Your task to perform on an android device: open app "Messenger Lite" Image 0: 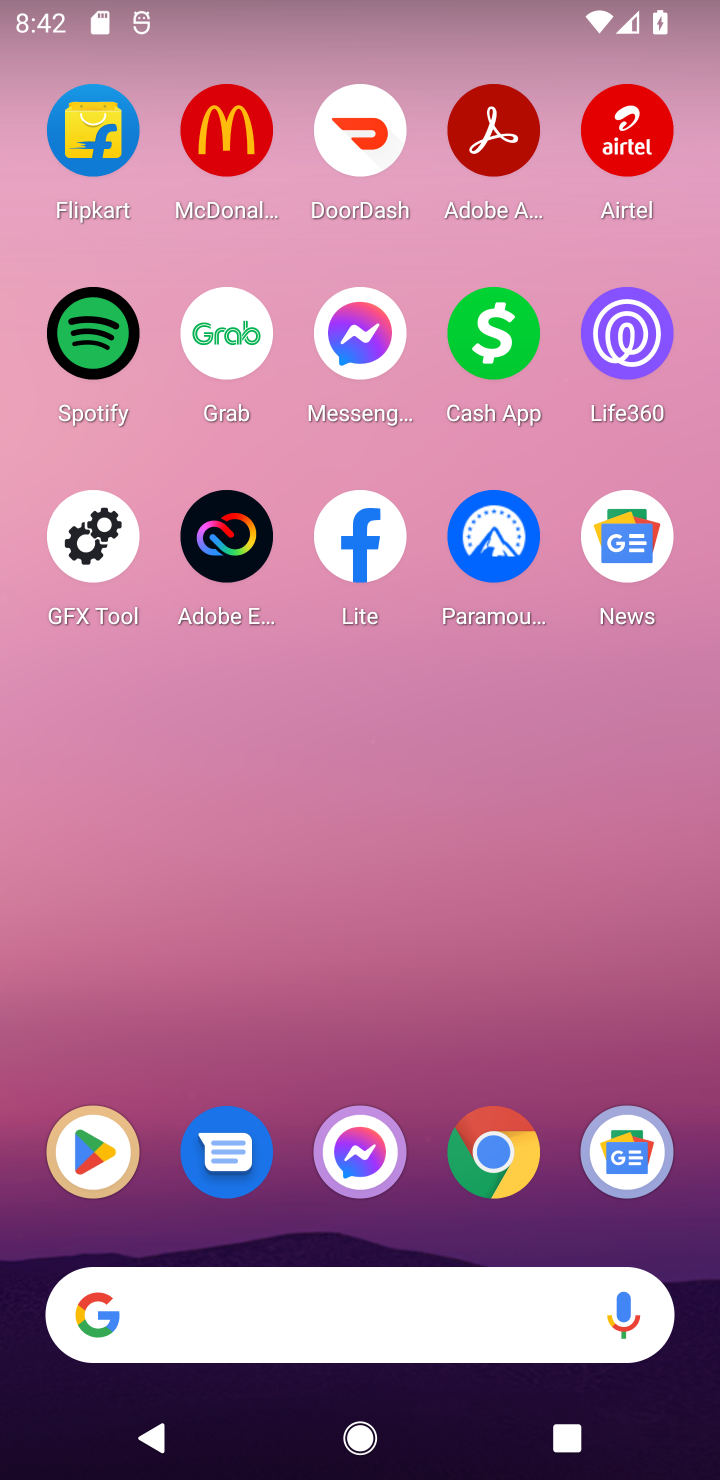
Step 0: click (85, 1172)
Your task to perform on an android device: open app "Messenger Lite" Image 1: 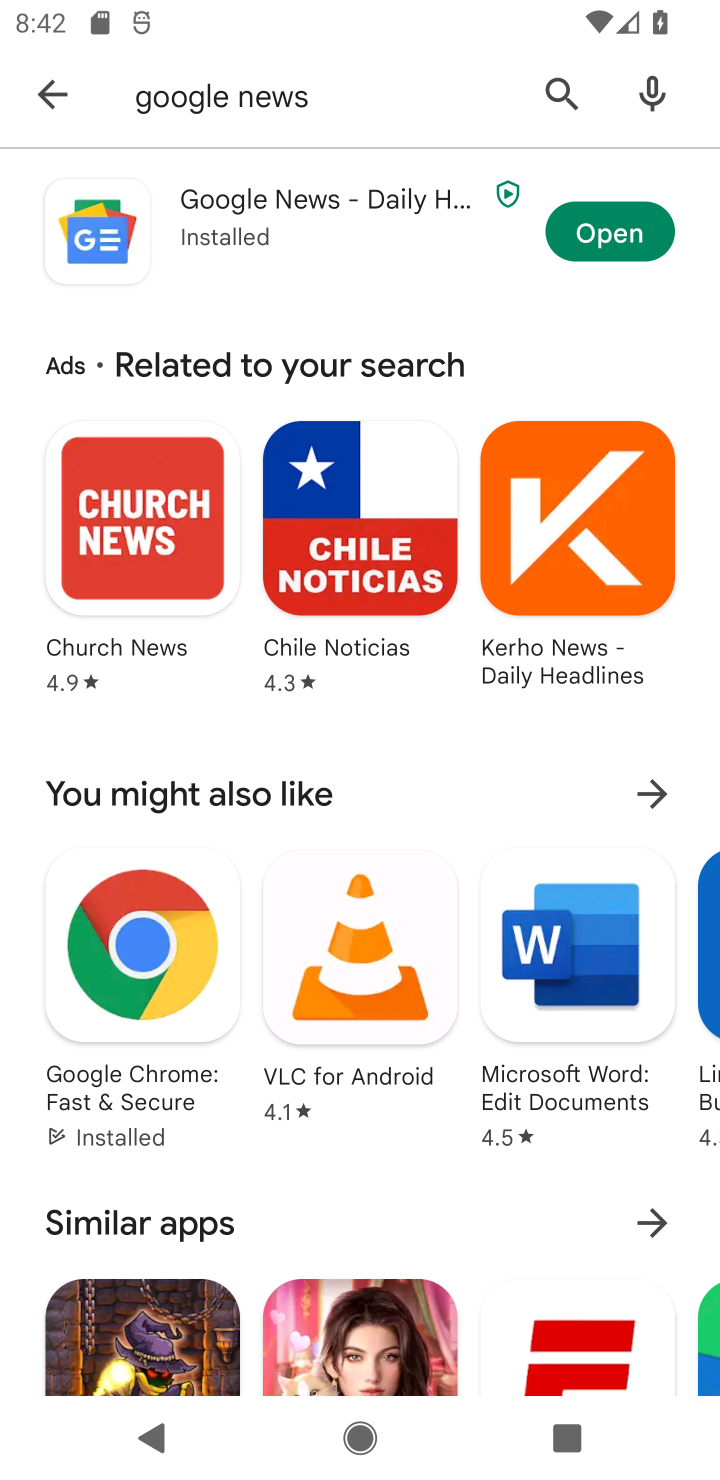
Step 1: click (28, 86)
Your task to perform on an android device: open app "Messenger Lite" Image 2: 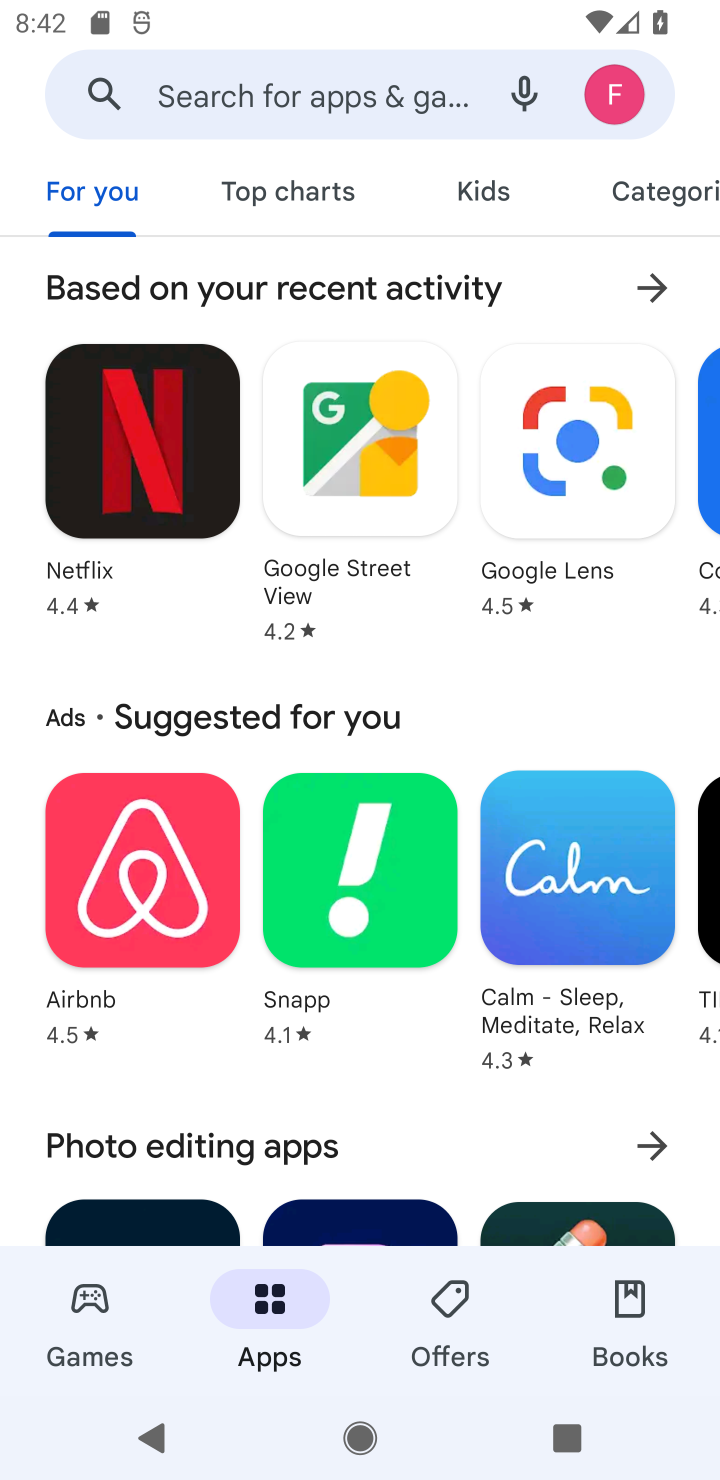
Step 2: click (283, 86)
Your task to perform on an android device: open app "Messenger Lite" Image 3: 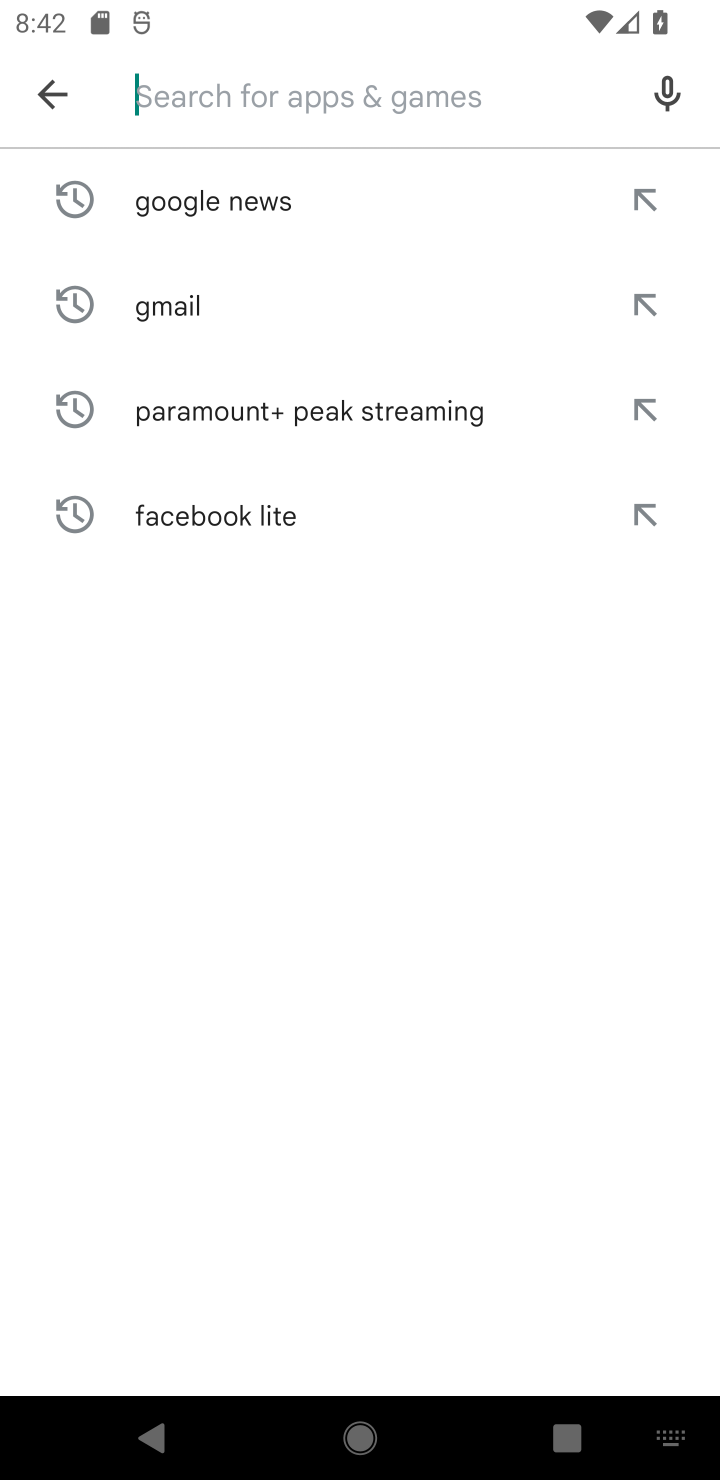
Step 3: type "Messenger Lite"
Your task to perform on an android device: open app "Messenger Lite" Image 4: 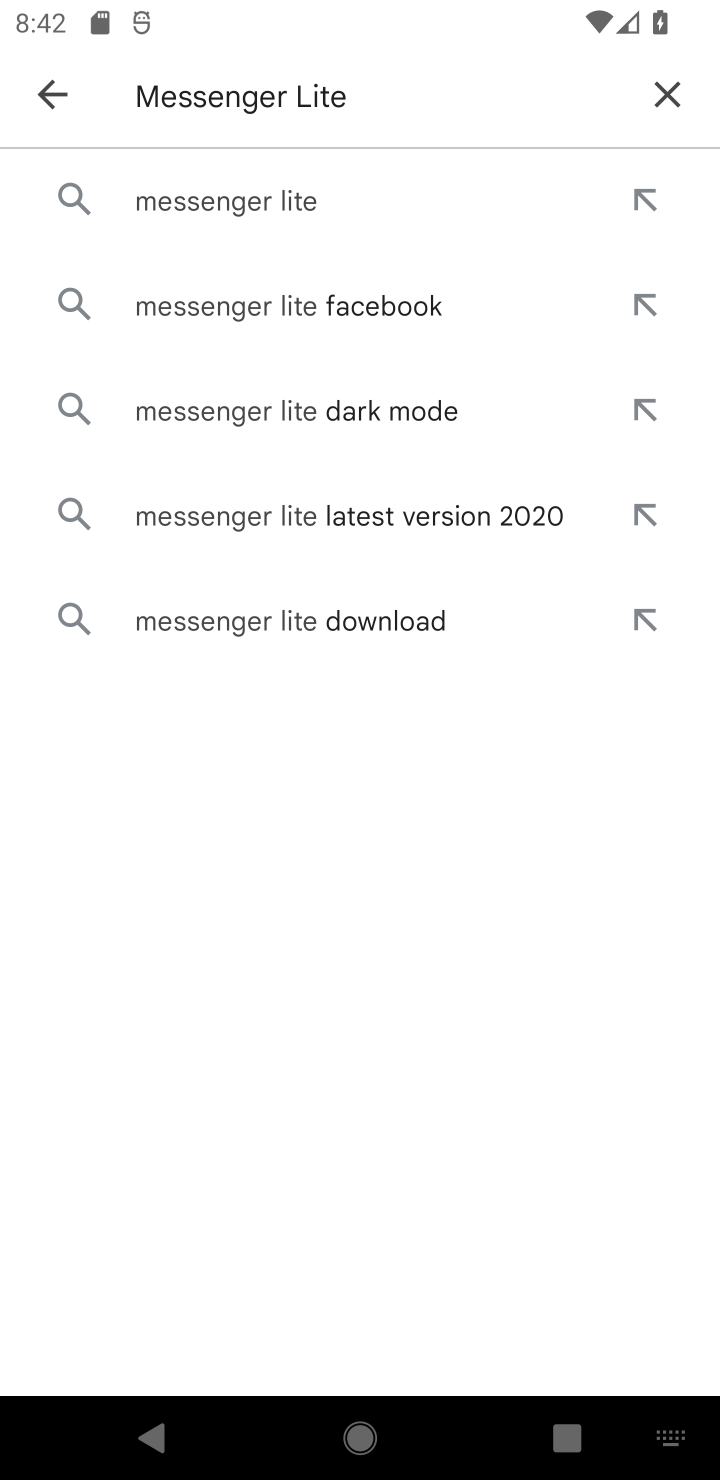
Step 4: click (295, 200)
Your task to perform on an android device: open app "Messenger Lite" Image 5: 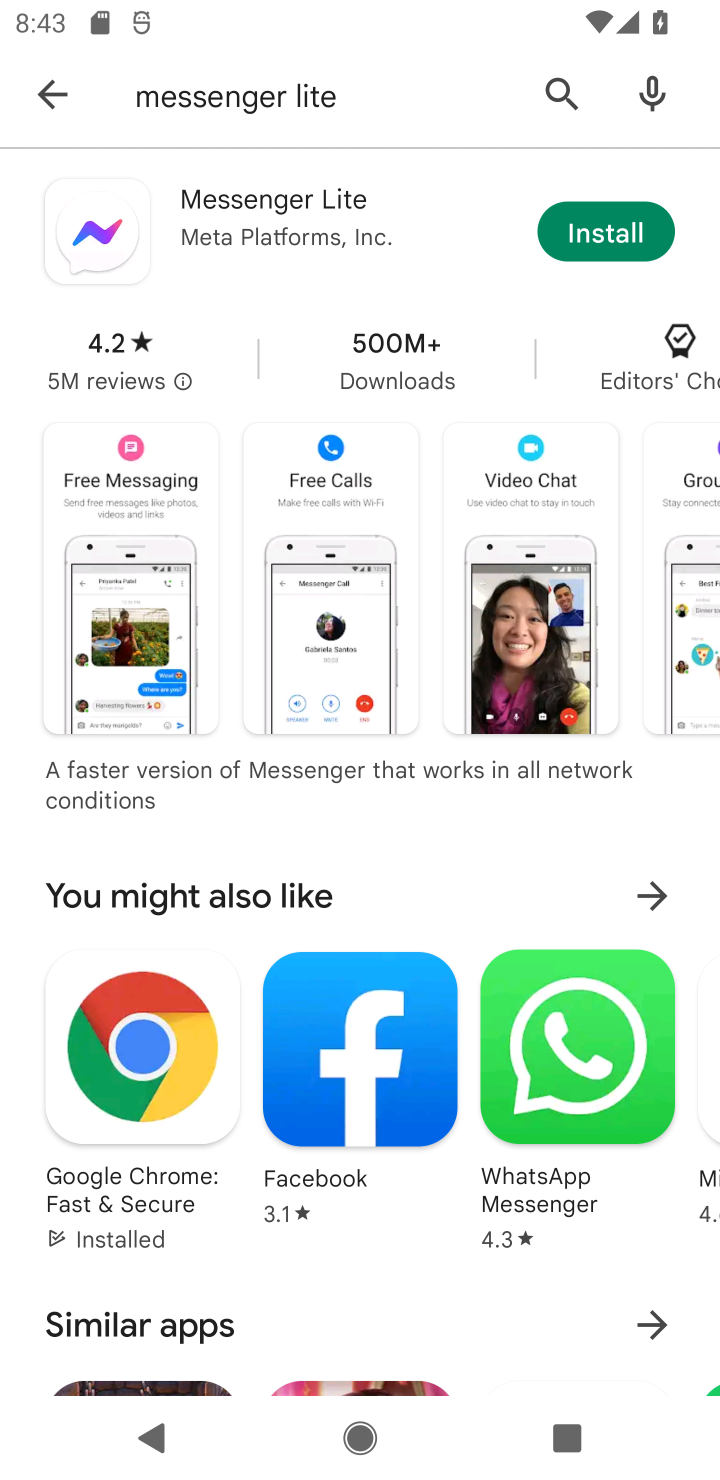
Step 5: click (603, 233)
Your task to perform on an android device: open app "Messenger Lite" Image 6: 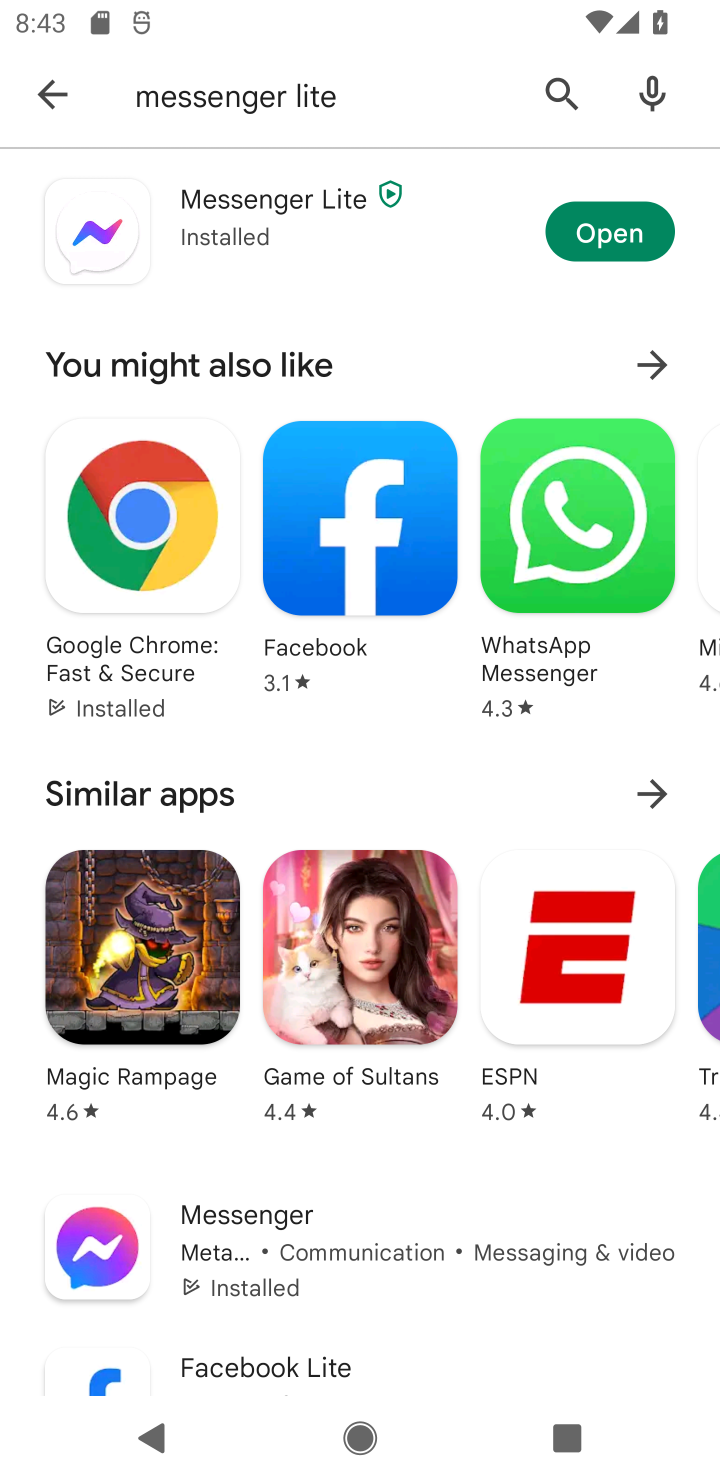
Step 6: click (598, 239)
Your task to perform on an android device: open app "Messenger Lite" Image 7: 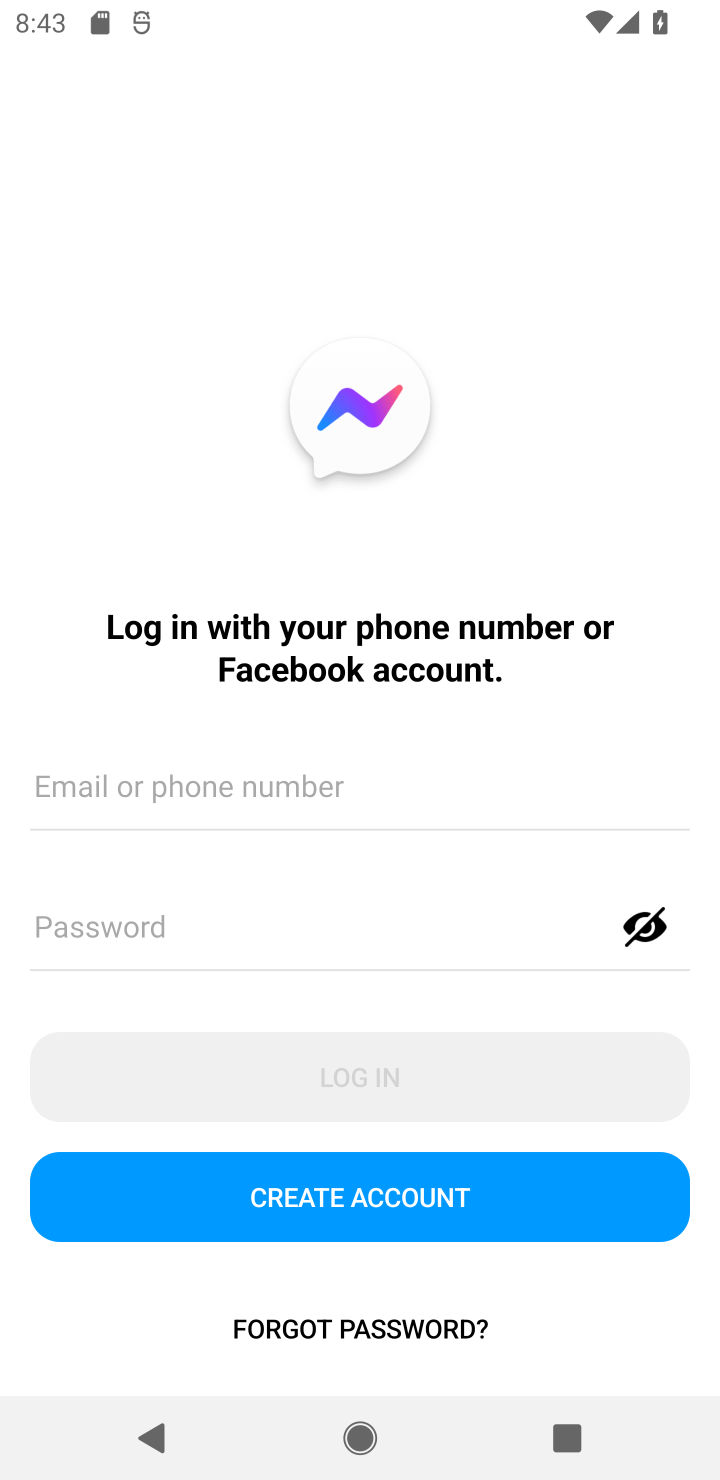
Step 7: task complete